Your task to perform on an android device: move a message to another label in the gmail app Image 0: 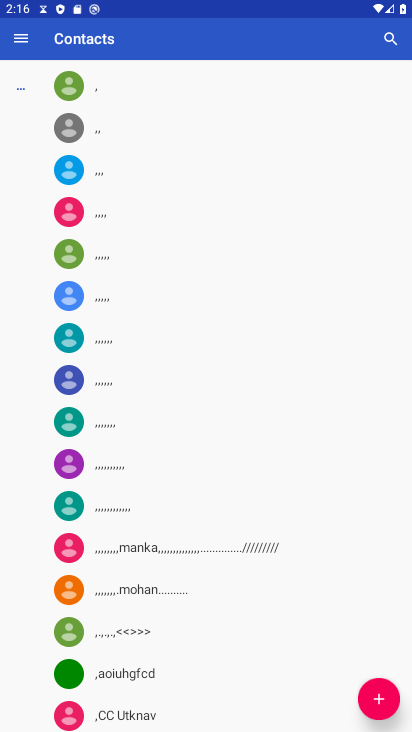
Step 0: press home button
Your task to perform on an android device: move a message to another label in the gmail app Image 1: 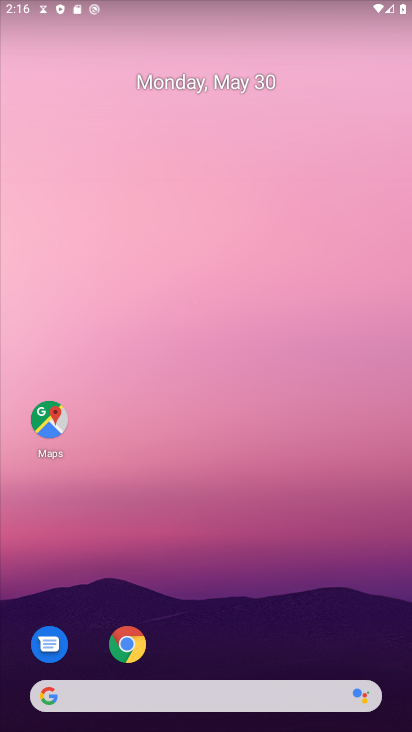
Step 1: drag from (241, 642) to (298, 4)
Your task to perform on an android device: move a message to another label in the gmail app Image 2: 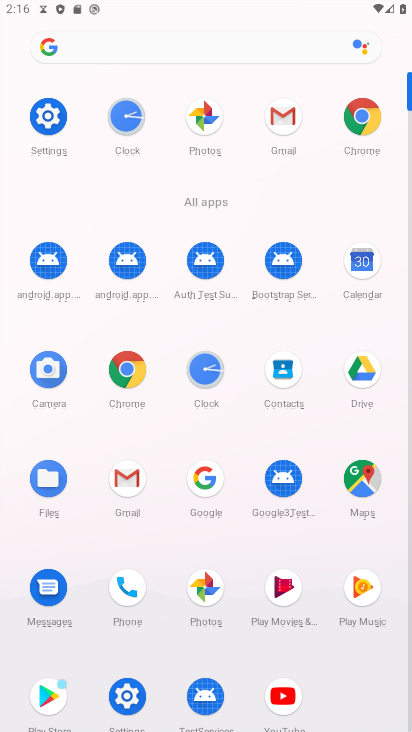
Step 2: click (278, 127)
Your task to perform on an android device: move a message to another label in the gmail app Image 3: 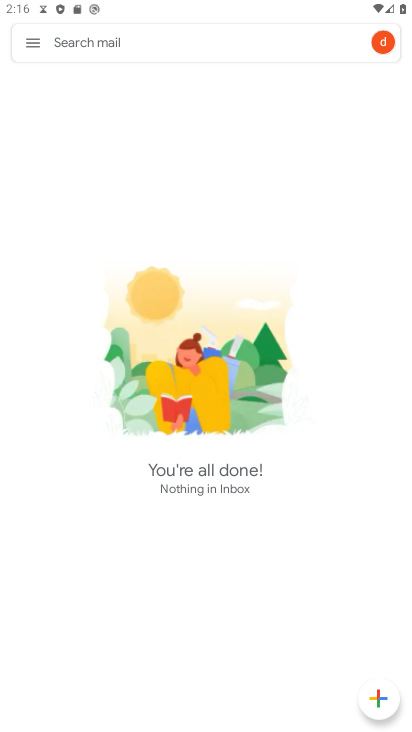
Step 3: task complete